Your task to perform on an android device: toggle pop-ups in chrome Image 0: 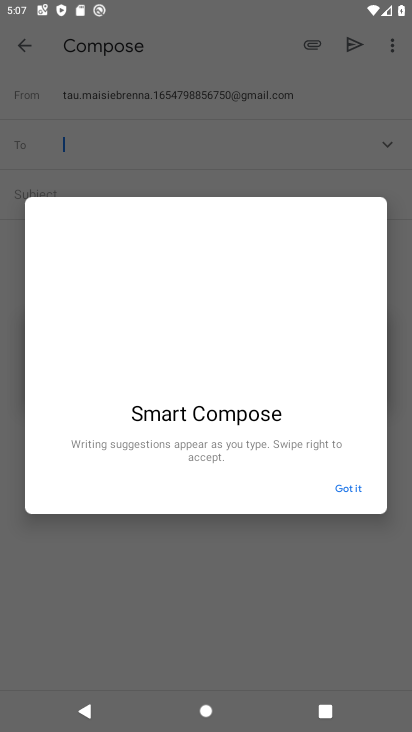
Step 0: press home button
Your task to perform on an android device: toggle pop-ups in chrome Image 1: 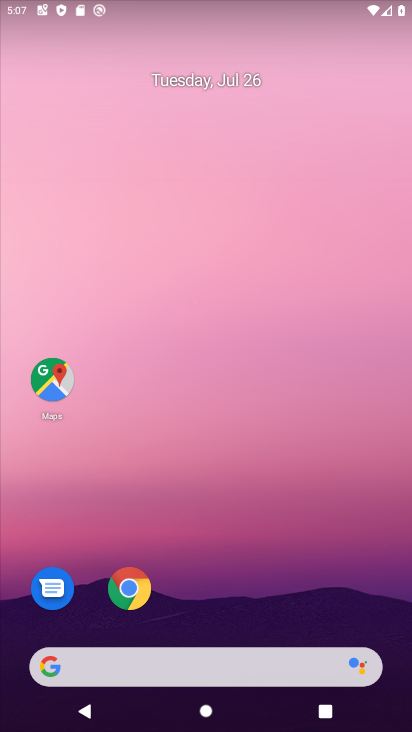
Step 1: drag from (256, 498) to (253, 85)
Your task to perform on an android device: toggle pop-ups in chrome Image 2: 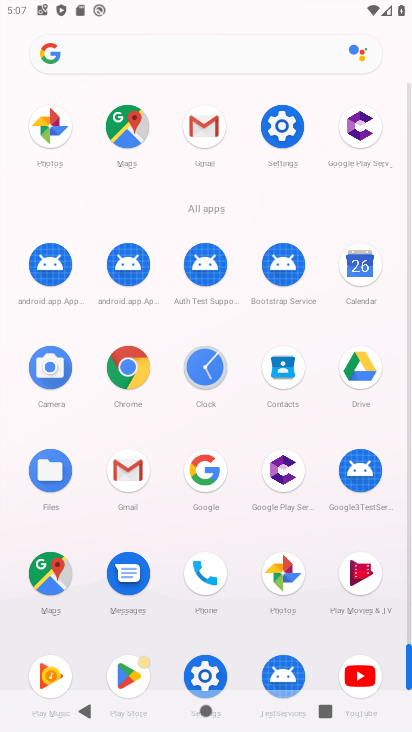
Step 2: click (125, 388)
Your task to perform on an android device: toggle pop-ups in chrome Image 3: 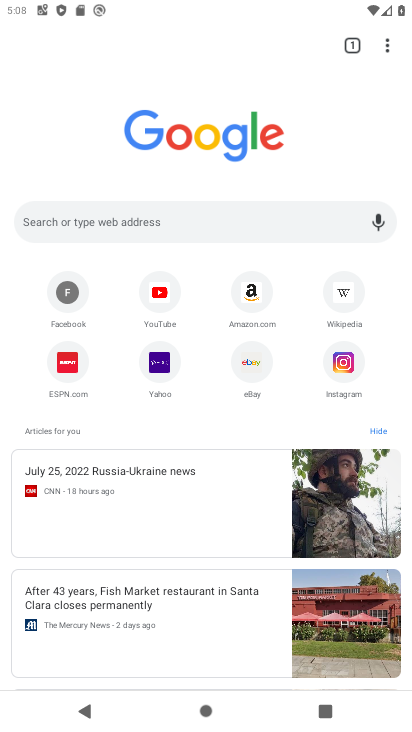
Step 3: click (384, 53)
Your task to perform on an android device: toggle pop-ups in chrome Image 4: 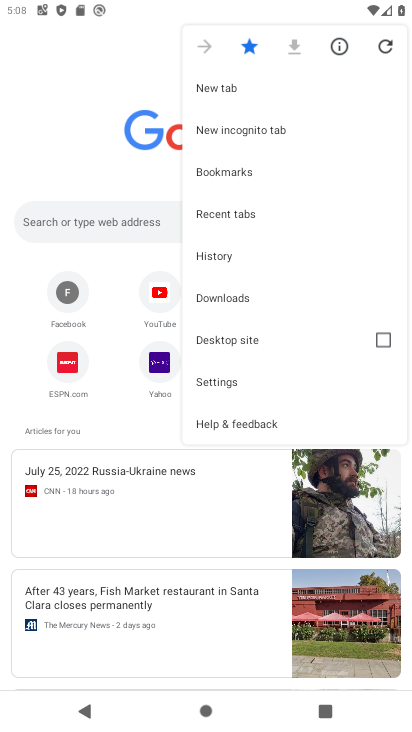
Step 4: click (233, 386)
Your task to perform on an android device: toggle pop-ups in chrome Image 5: 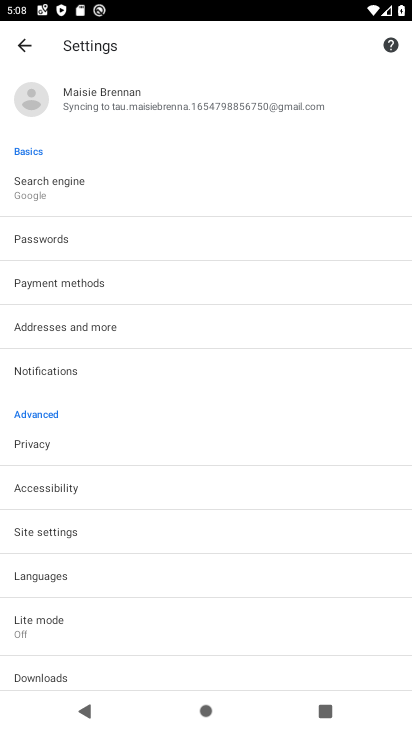
Step 5: drag from (179, 619) to (213, 176)
Your task to perform on an android device: toggle pop-ups in chrome Image 6: 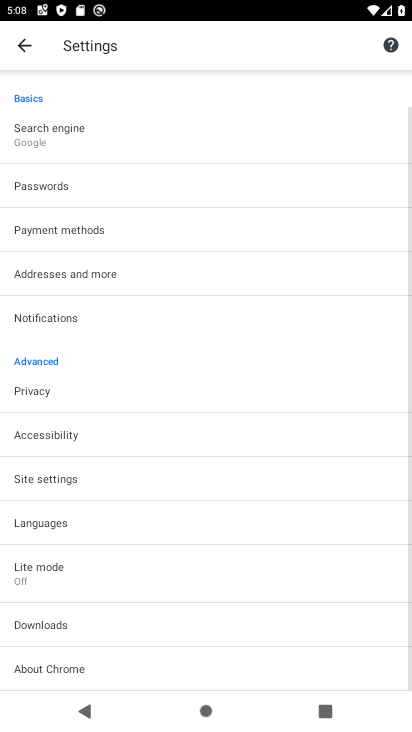
Step 6: click (107, 480)
Your task to perform on an android device: toggle pop-ups in chrome Image 7: 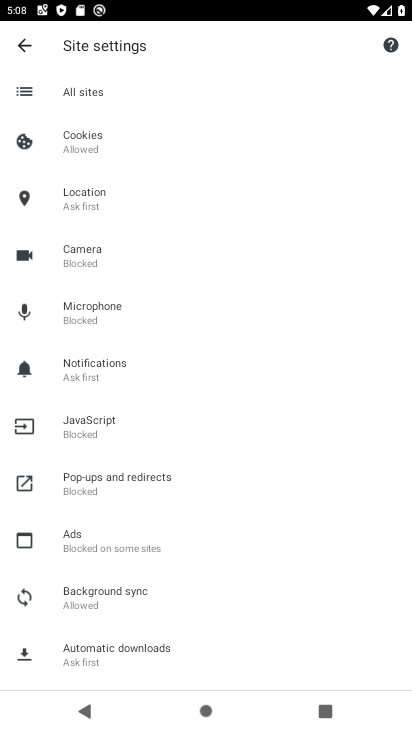
Step 7: click (125, 485)
Your task to perform on an android device: toggle pop-ups in chrome Image 8: 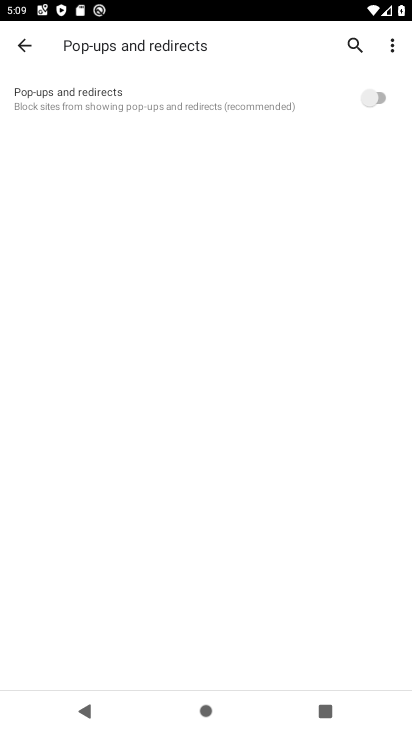
Step 8: click (382, 100)
Your task to perform on an android device: toggle pop-ups in chrome Image 9: 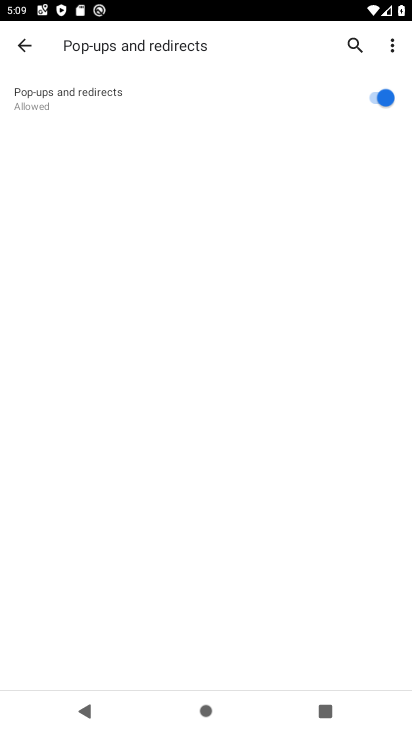
Step 9: task complete